Your task to perform on an android device: When is my next appointment? Image 0: 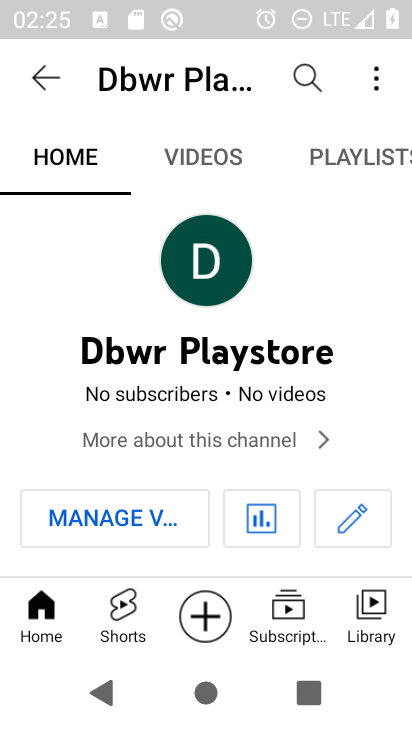
Step 0: press home button
Your task to perform on an android device: When is my next appointment? Image 1: 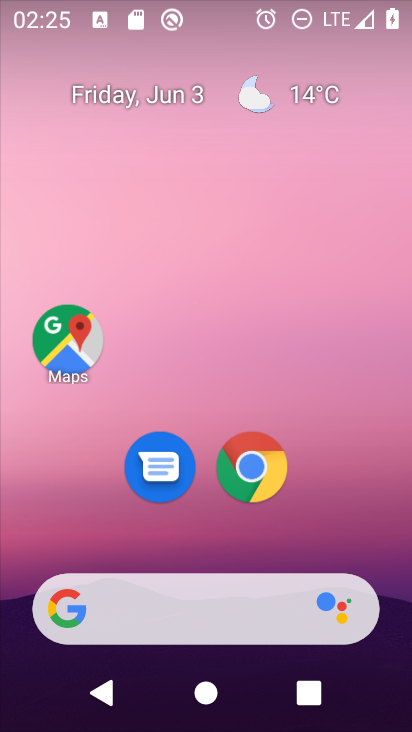
Step 1: drag from (396, 607) to (281, 13)
Your task to perform on an android device: When is my next appointment? Image 2: 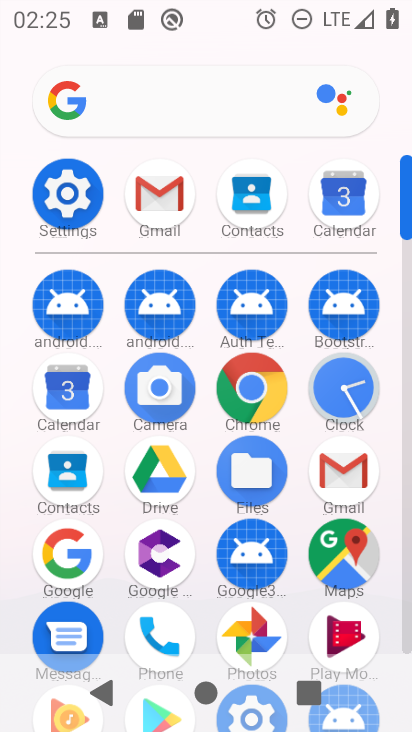
Step 2: click (406, 629)
Your task to perform on an android device: When is my next appointment? Image 3: 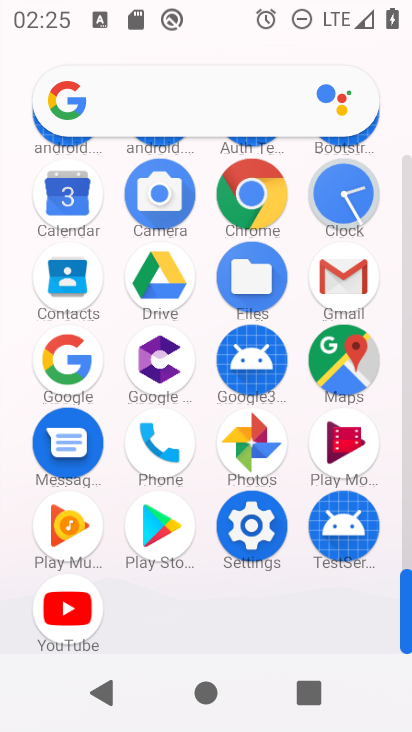
Step 3: click (67, 195)
Your task to perform on an android device: When is my next appointment? Image 4: 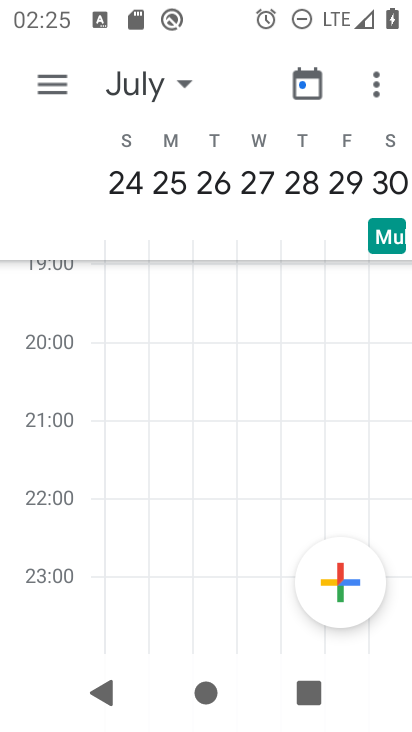
Step 4: click (45, 77)
Your task to perform on an android device: When is my next appointment? Image 5: 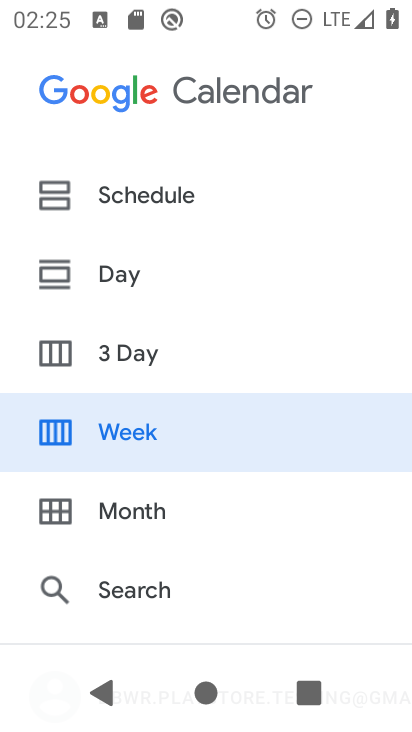
Step 5: click (140, 191)
Your task to perform on an android device: When is my next appointment? Image 6: 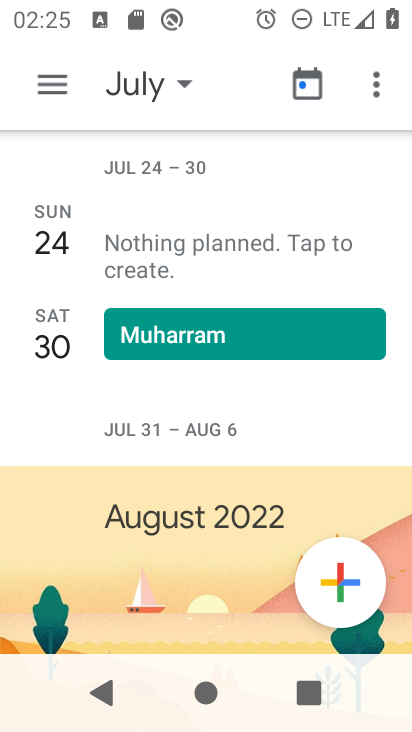
Step 6: drag from (271, 480) to (241, 198)
Your task to perform on an android device: When is my next appointment? Image 7: 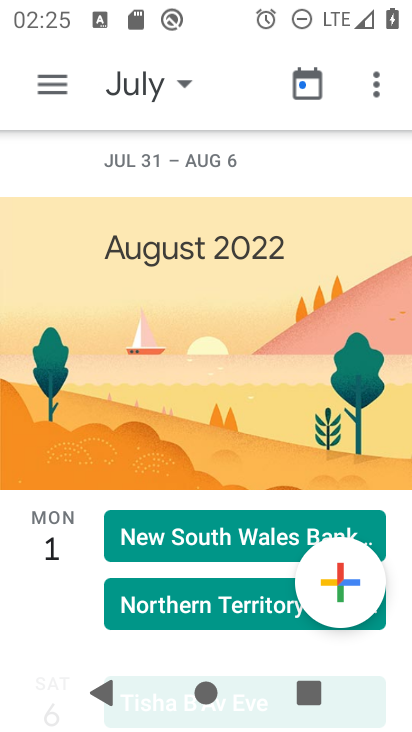
Step 7: click (185, 83)
Your task to perform on an android device: When is my next appointment? Image 8: 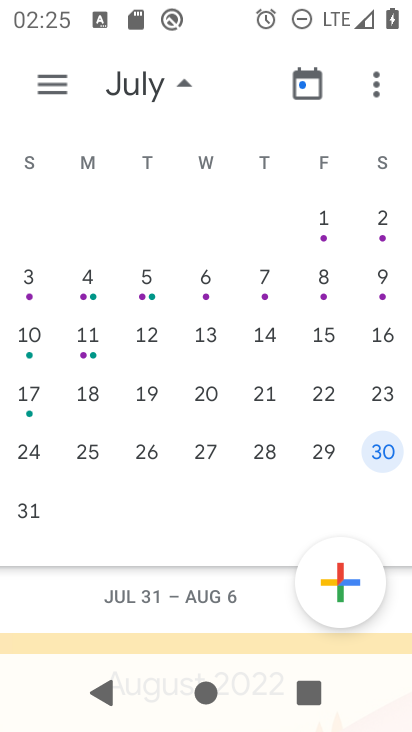
Step 8: drag from (29, 338) to (406, 319)
Your task to perform on an android device: When is my next appointment? Image 9: 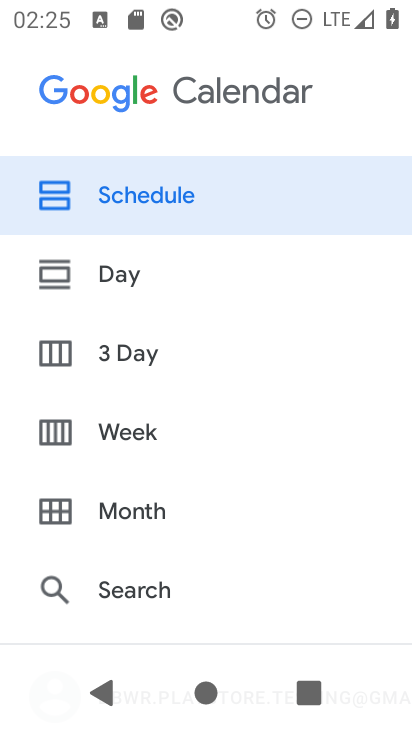
Step 9: click (53, 195)
Your task to perform on an android device: When is my next appointment? Image 10: 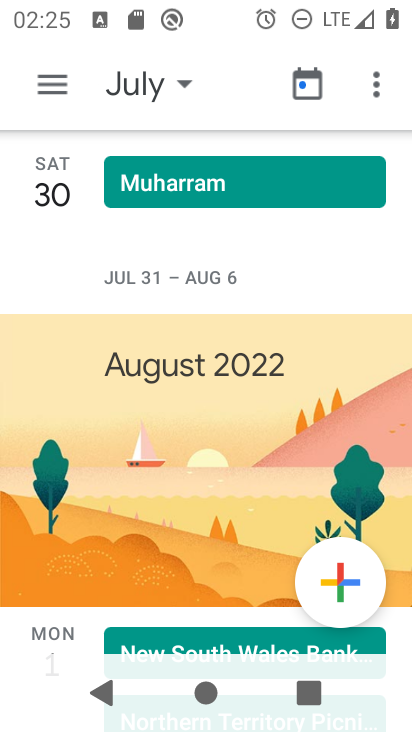
Step 10: task complete